Your task to perform on an android device: Open Google Maps and go to "Timeline" Image 0: 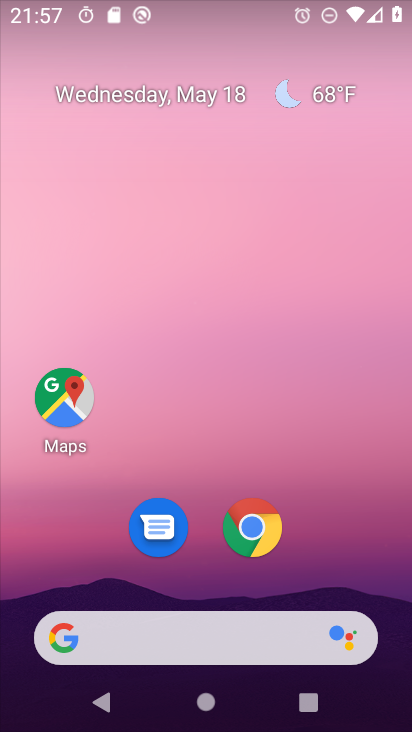
Step 0: click (57, 398)
Your task to perform on an android device: Open Google Maps and go to "Timeline" Image 1: 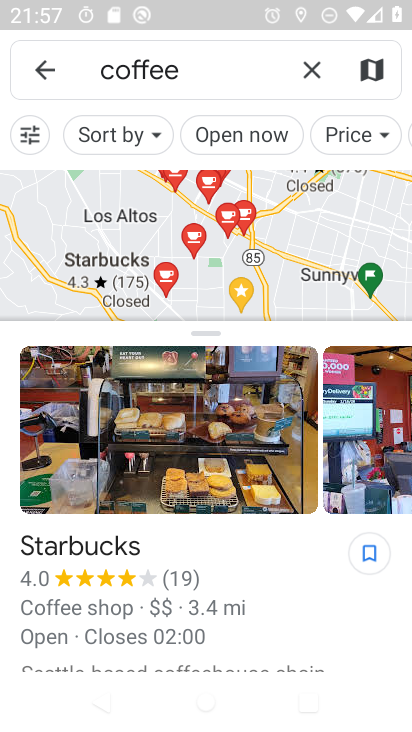
Step 1: click (42, 69)
Your task to perform on an android device: Open Google Maps and go to "Timeline" Image 2: 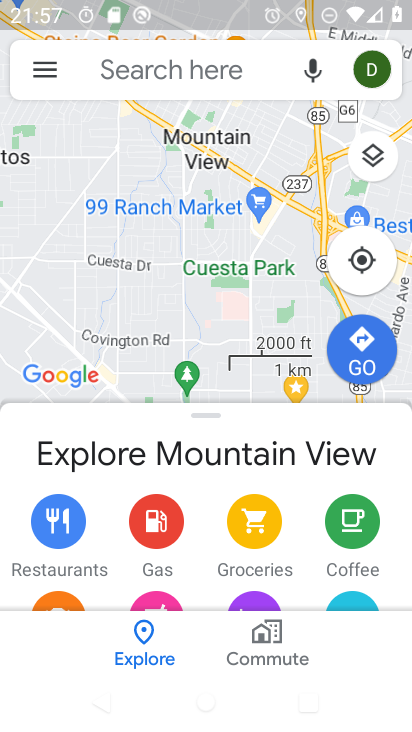
Step 2: click (41, 66)
Your task to perform on an android device: Open Google Maps and go to "Timeline" Image 3: 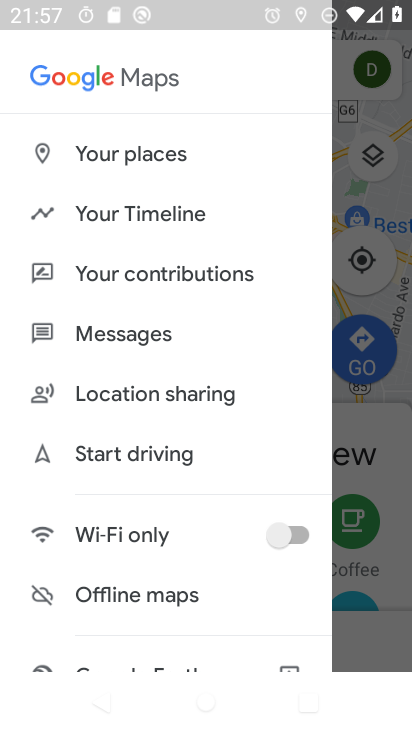
Step 3: click (96, 216)
Your task to perform on an android device: Open Google Maps and go to "Timeline" Image 4: 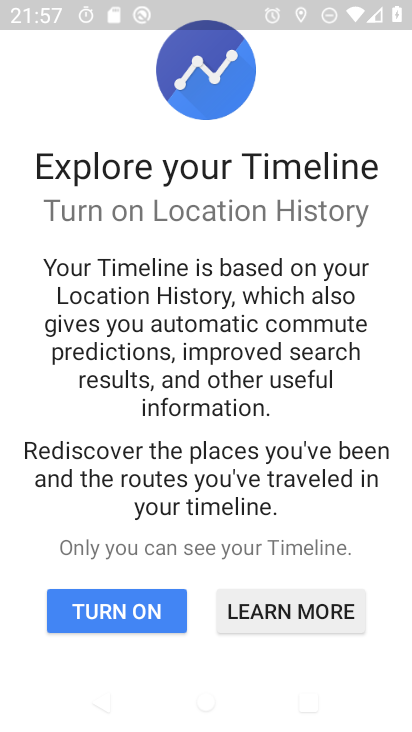
Step 4: click (166, 615)
Your task to perform on an android device: Open Google Maps and go to "Timeline" Image 5: 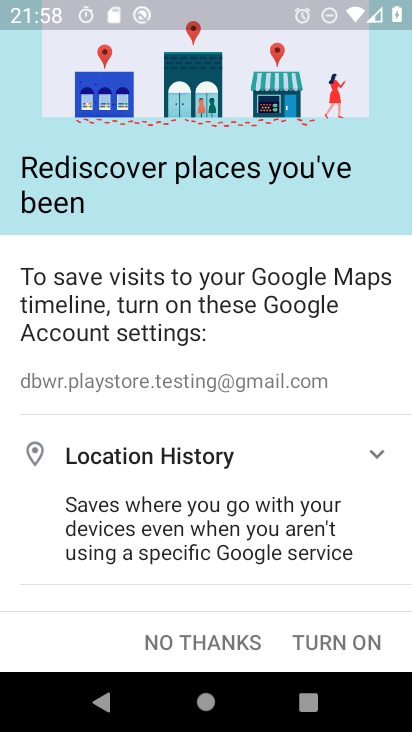
Step 5: task complete